Your task to perform on an android device: Go to CNN.com Image 0: 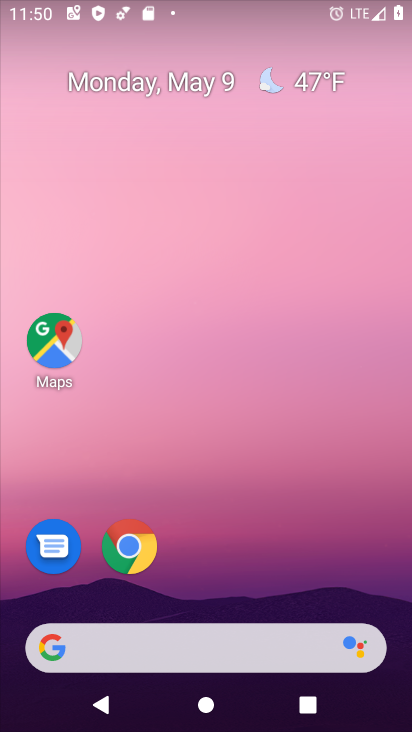
Step 0: click (137, 561)
Your task to perform on an android device: Go to CNN.com Image 1: 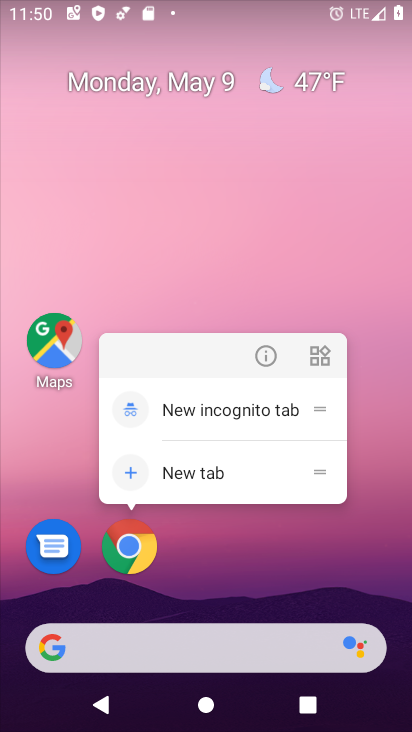
Step 1: click (131, 547)
Your task to perform on an android device: Go to CNN.com Image 2: 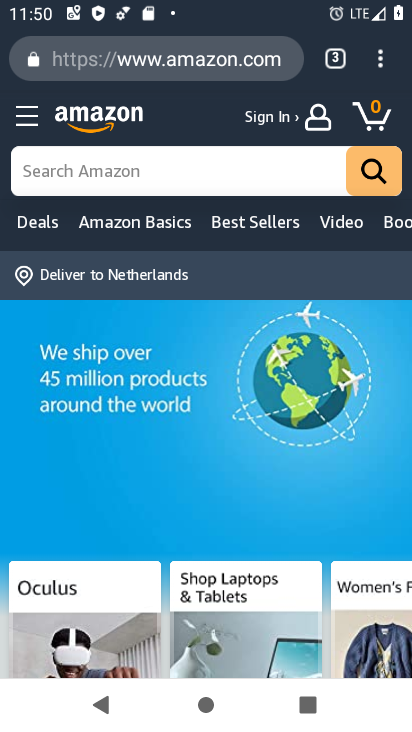
Step 2: click (184, 70)
Your task to perform on an android device: Go to CNN.com Image 3: 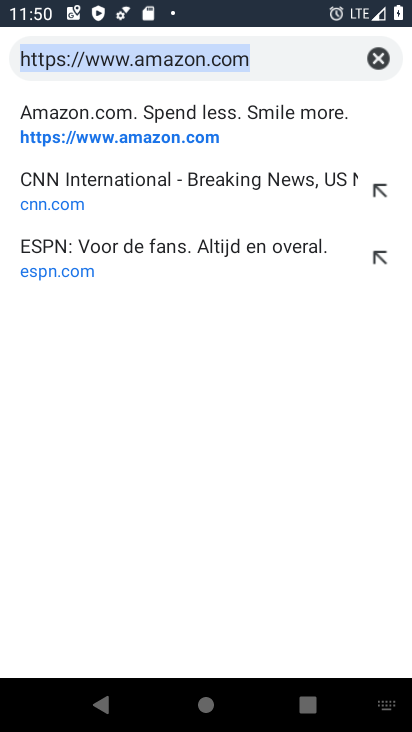
Step 3: click (78, 197)
Your task to perform on an android device: Go to CNN.com Image 4: 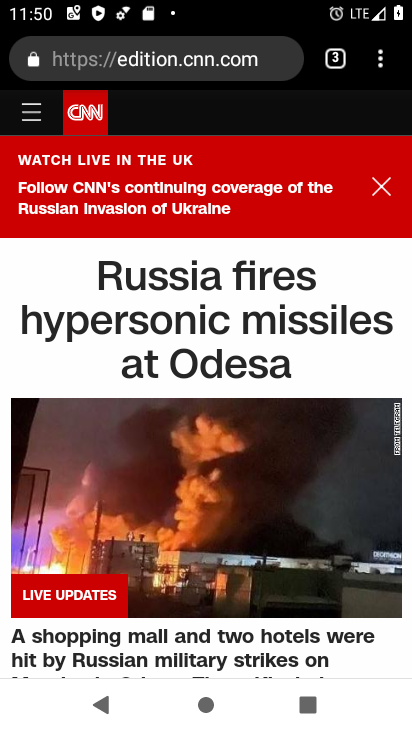
Step 4: task complete